Your task to perform on an android device: Open the Play Movies app and select the watchlist tab. Image 0: 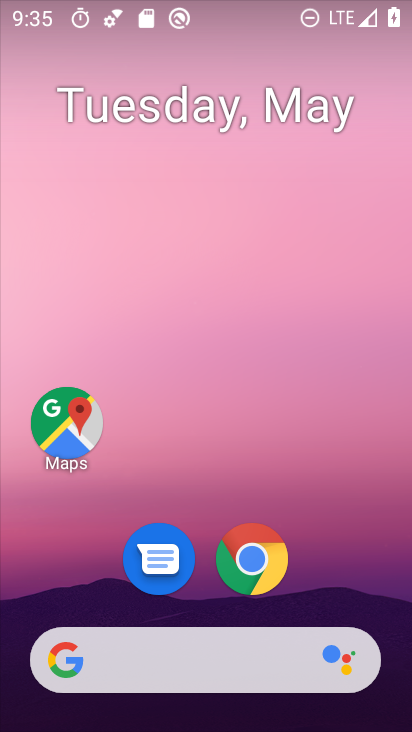
Step 0: drag from (392, 644) to (242, 37)
Your task to perform on an android device: Open the Play Movies app and select the watchlist tab. Image 1: 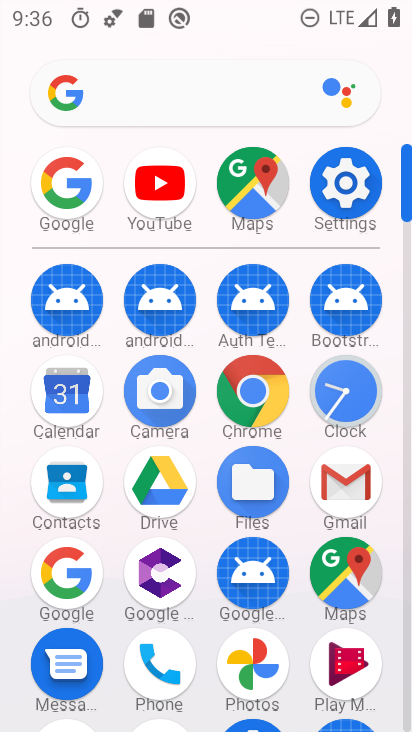
Step 1: click (358, 663)
Your task to perform on an android device: Open the Play Movies app and select the watchlist tab. Image 2: 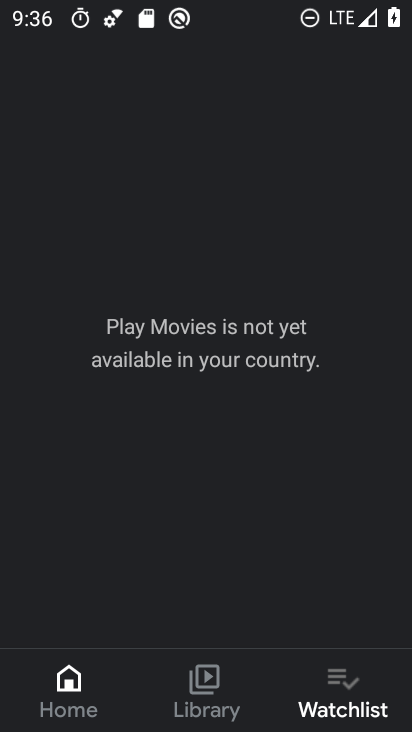
Step 2: click (330, 693)
Your task to perform on an android device: Open the Play Movies app and select the watchlist tab. Image 3: 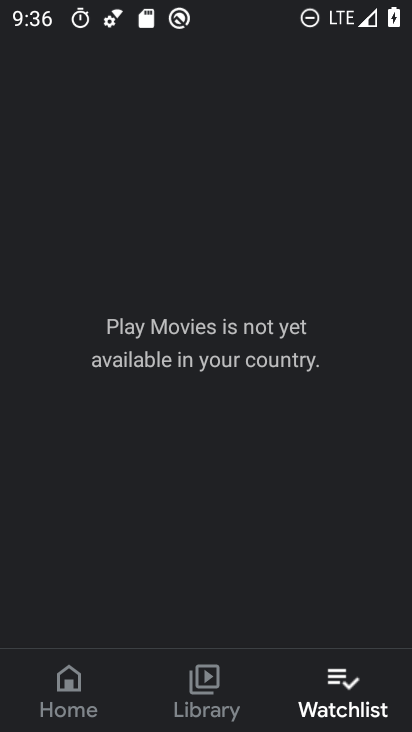
Step 3: task complete